Your task to perform on an android device: Go to Reddit.com Image 0: 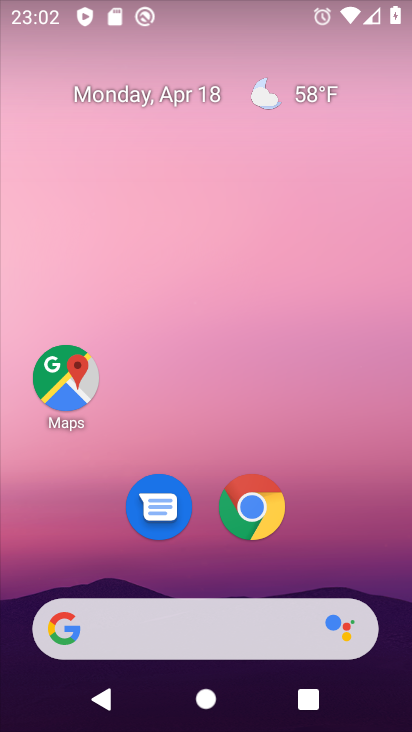
Step 0: click (269, 496)
Your task to perform on an android device: Go to Reddit.com Image 1: 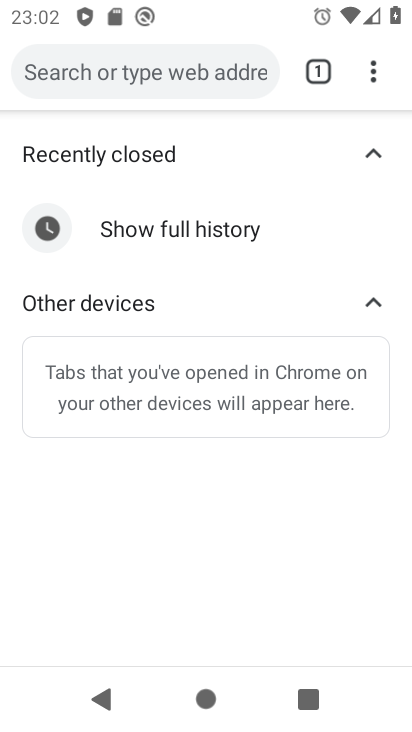
Step 1: click (323, 71)
Your task to perform on an android device: Go to Reddit.com Image 2: 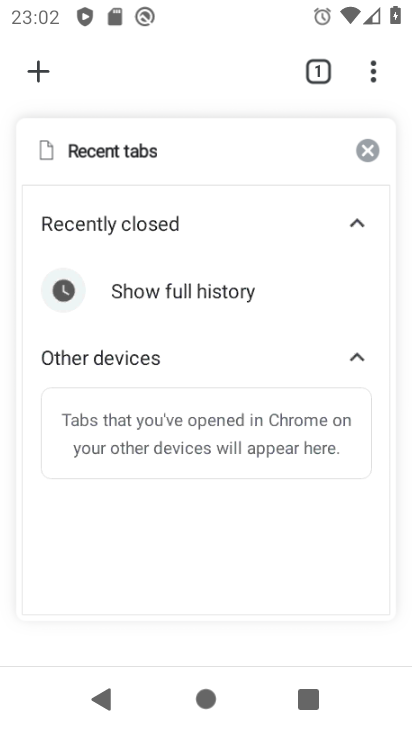
Step 2: click (45, 65)
Your task to perform on an android device: Go to Reddit.com Image 3: 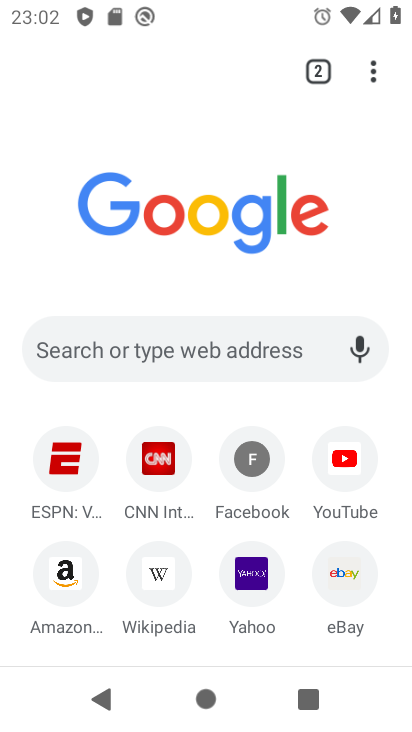
Step 3: click (136, 341)
Your task to perform on an android device: Go to Reddit.com Image 4: 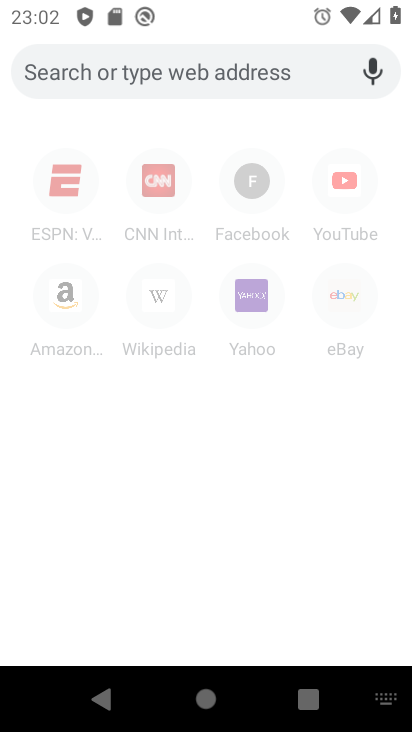
Step 4: type "reddit.com"
Your task to perform on an android device: Go to Reddit.com Image 5: 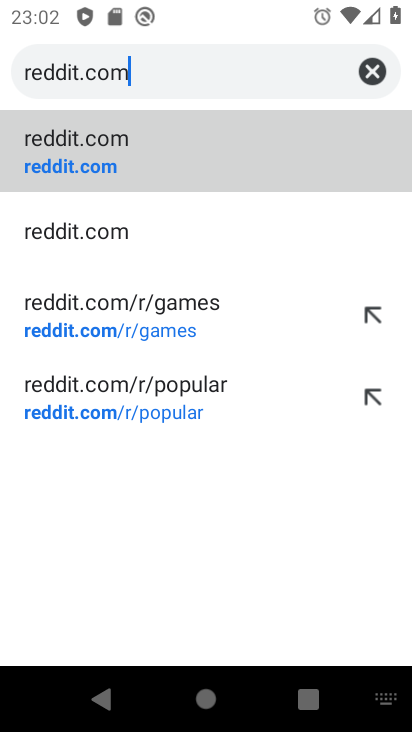
Step 5: click (207, 149)
Your task to perform on an android device: Go to Reddit.com Image 6: 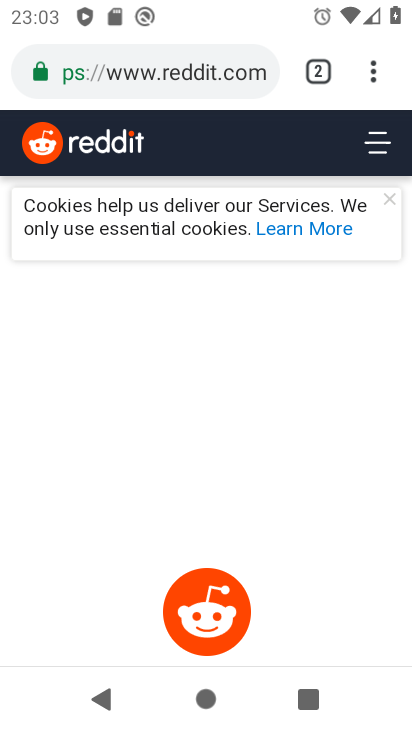
Step 6: task complete